Your task to perform on an android device: read, delete, or share a saved page in the chrome app Image 0: 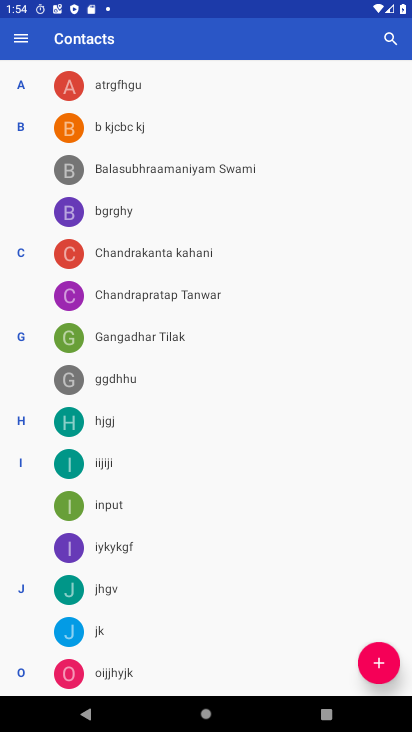
Step 0: press home button
Your task to perform on an android device: read, delete, or share a saved page in the chrome app Image 1: 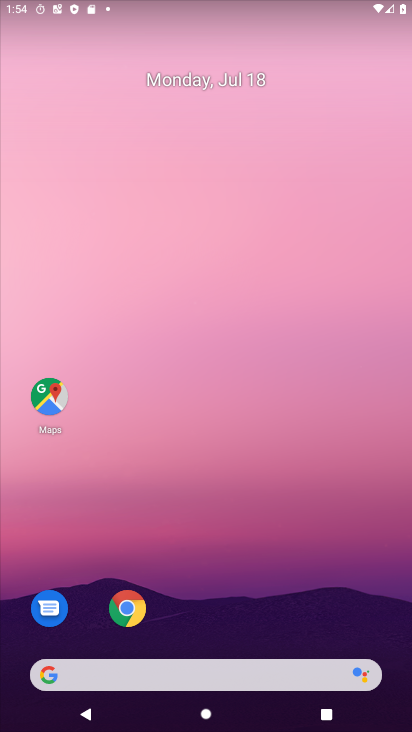
Step 1: click (126, 609)
Your task to perform on an android device: read, delete, or share a saved page in the chrome app Image 2: 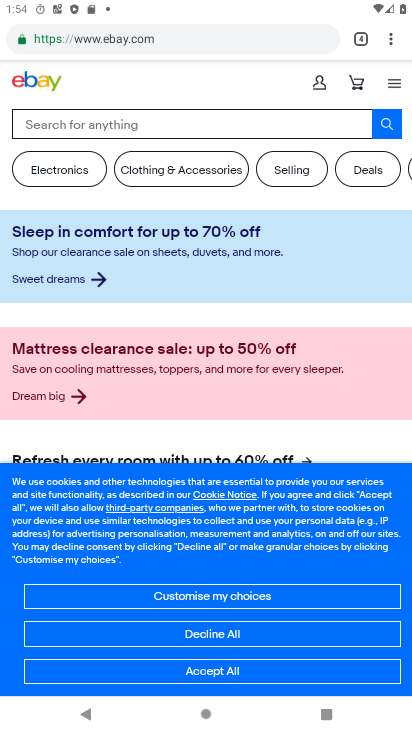
Step 2: click (390, 40)
Your task to perform on an android device: read, delete, or share a saved page in the chrome app Image 3: 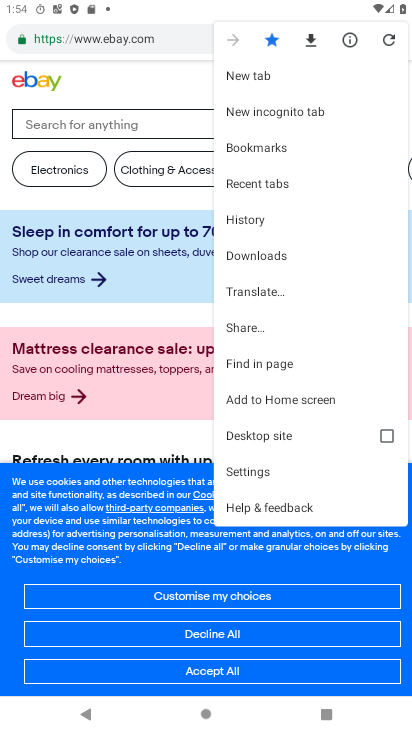
Step 3: click (268, 256)
Your task to perform on an android device: read, delete, or share a saved page in the chrome app Image 4: 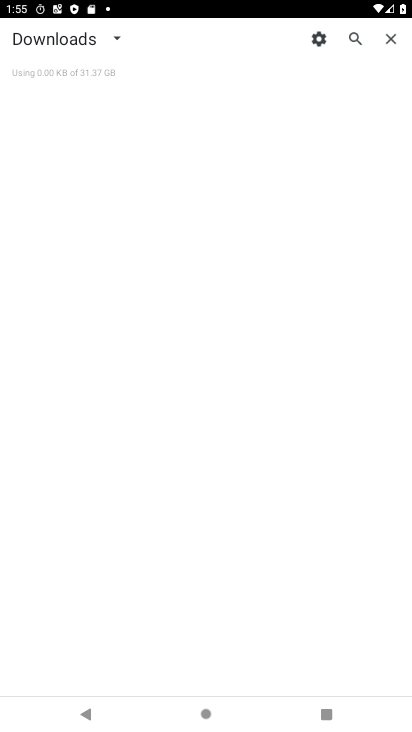
Step 4: task complete